Your task to perform on an android device: Open internet settings Image 0: 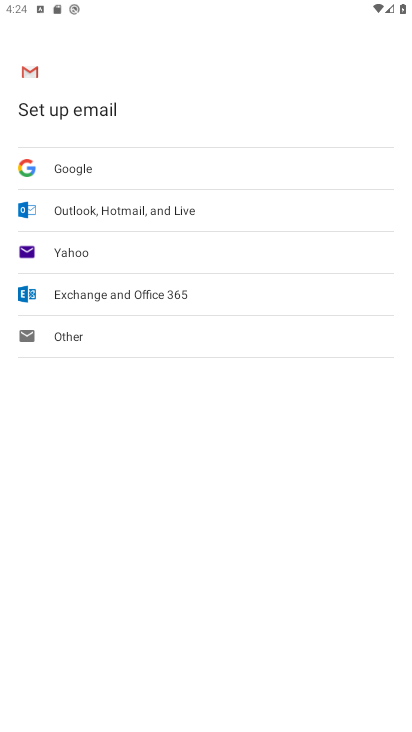
Step 0: press home button
Your task to perform on an android device: Open internet settings Image 1: 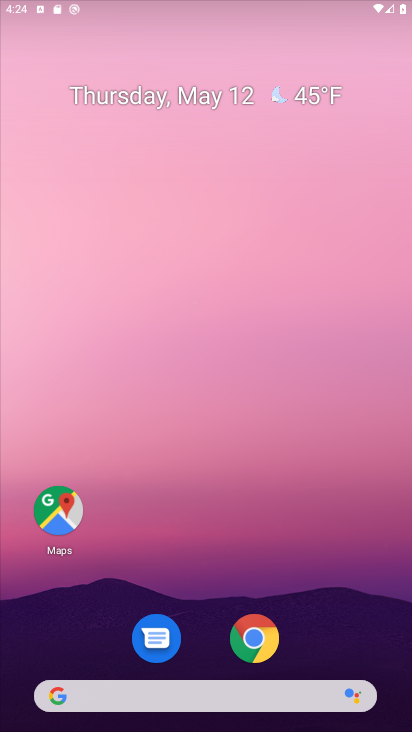
Step 1: drag from (234, 509) to (202, 157)
Your task to perform on an android device: Open internet settings Image 2: 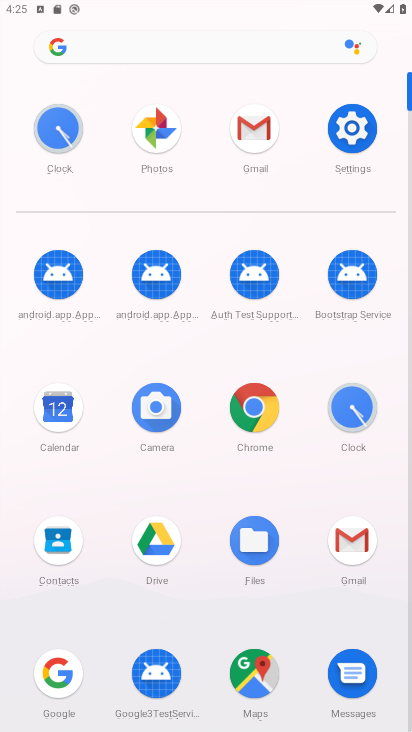
Step 2: click (346, 133)
Your task to perform on an android device: Open internet settings Image 3: 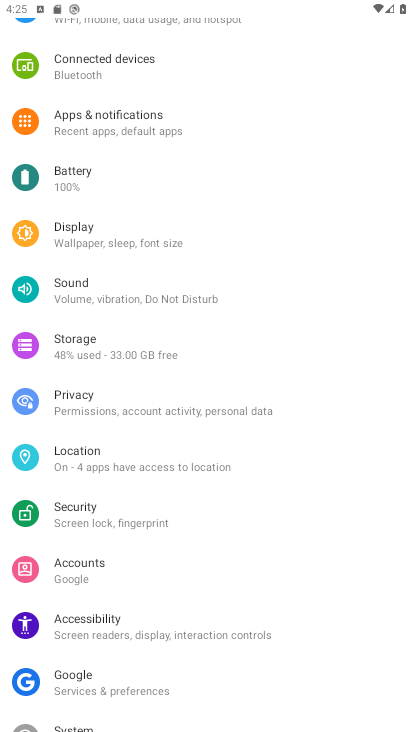
Step 3: drag from (148, 159) to (164, 604)
Your task to perform on an android device: Open internet settings Image 4: 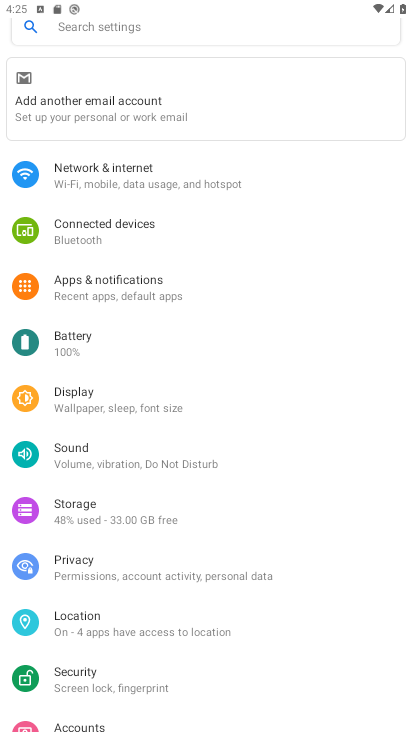
Step 4: click (161, 191)
Your task to perform on an android device: Open internet settings Image 5: 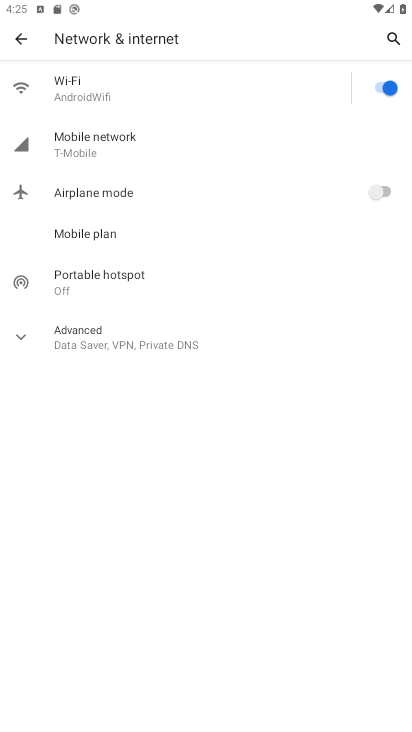
Step 5: task complete